Your task to perform on an android device: Show me recent news Image 0: 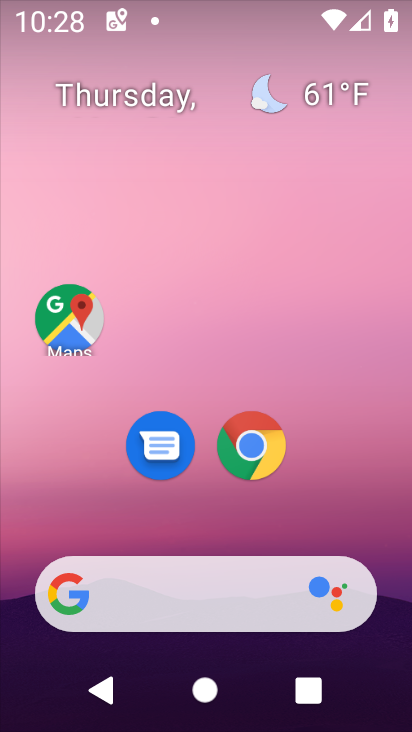
Step 0: click (179, 579)
Your task to perform on an android device: Show me recent news Image 1: 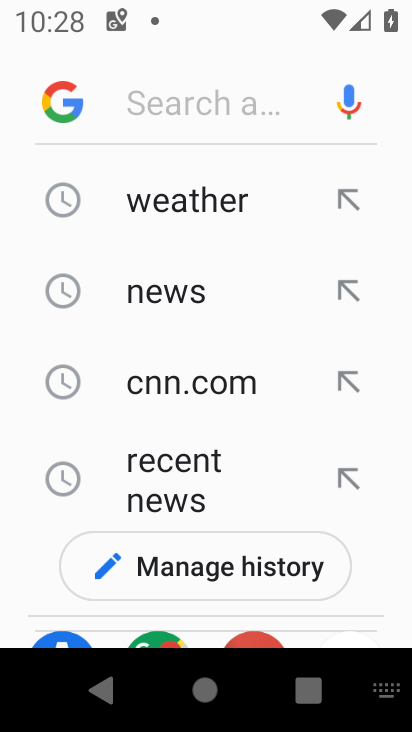
Step 1: type "recent news"
Your task to perform on an android device: Show me recent news Image 2: 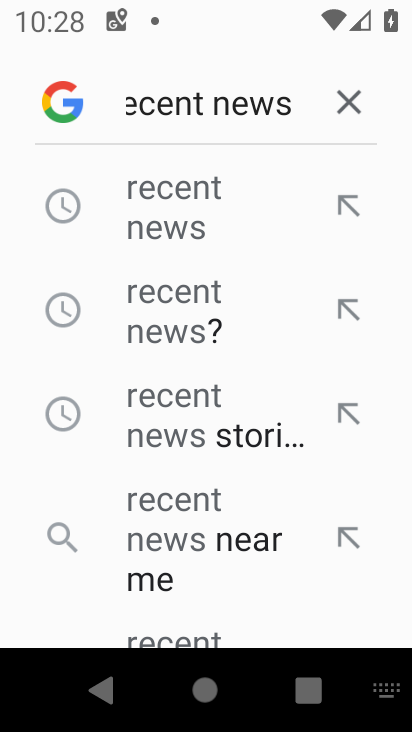
Step 2: click (195, 226)
Your task to perform on an android device: Show me recent news Image 3: 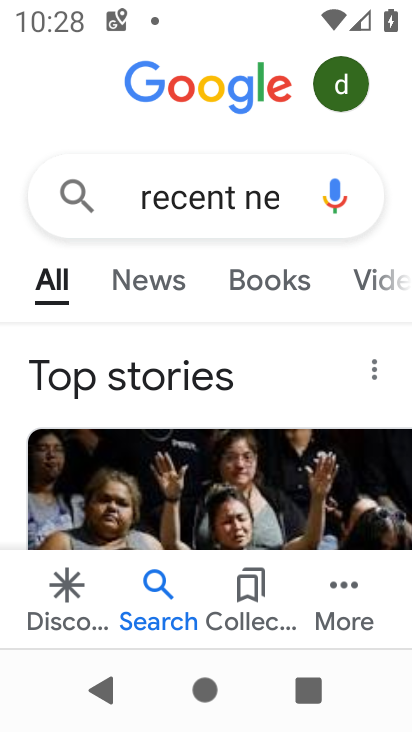
Step 3: click (156, 279)
Your task to perform on an android device: Show me recent news Image 4: 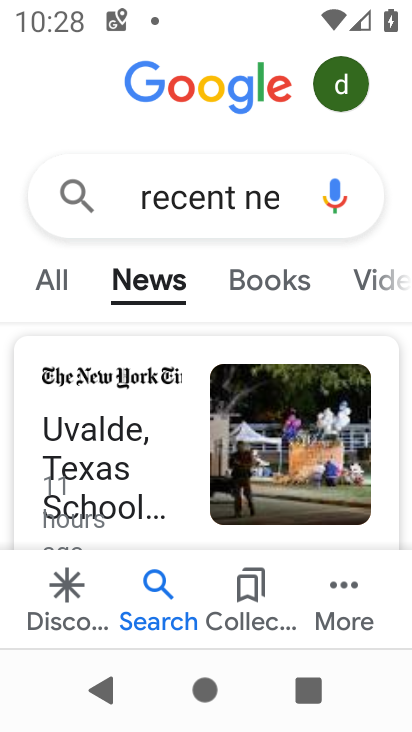
Step 4: task complete